Your task to perform on an android device: read, delete, or share a saved page in the chrome app Image 0: 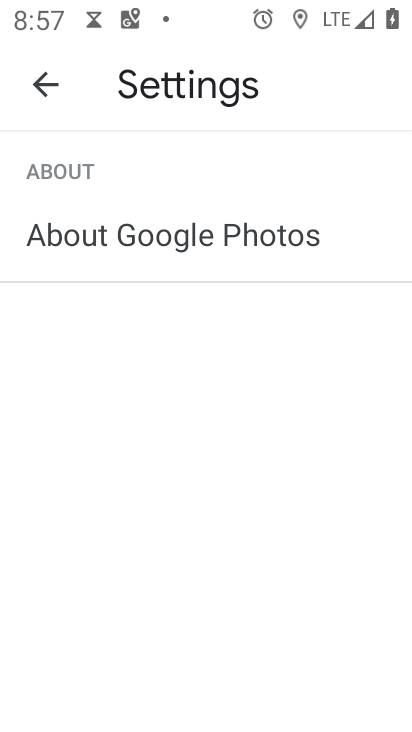
Step 0: press home button
Your task to perform on an android device: read, delete, or share a saved page in the chrome app Image 1: 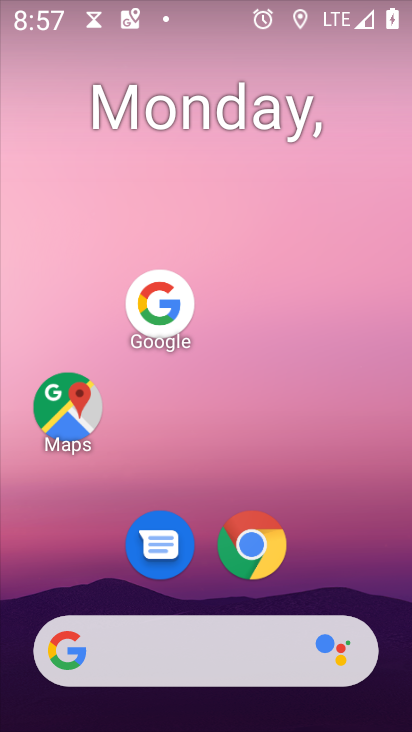
Step 1: click (248, 539)
Your task to perform on an android device: read, delete, or share a saved page in the chrome app Image 2: 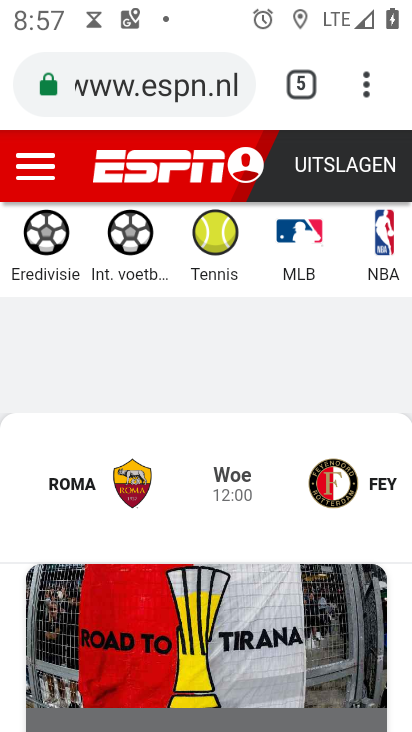
Step 2: drag from (370, 101) to (198, 549)
Your task to perform on an android device: read, delete, or share a saved page in the chrome app Image 3: 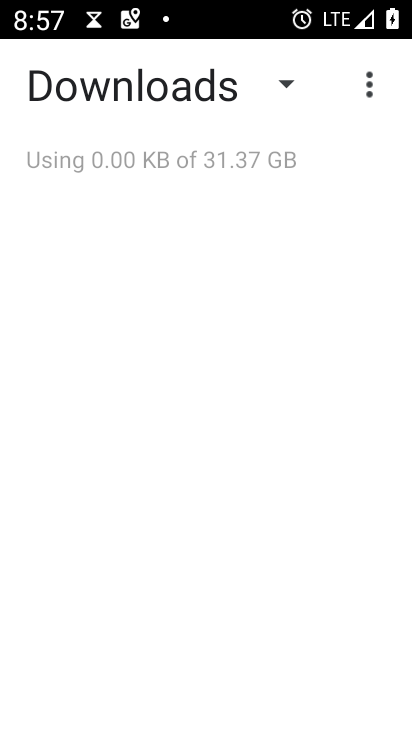
Step 3: click (285, 86)
Your task to perform on an android device: read, delete, or share a saved page in the chrome app Image 4: 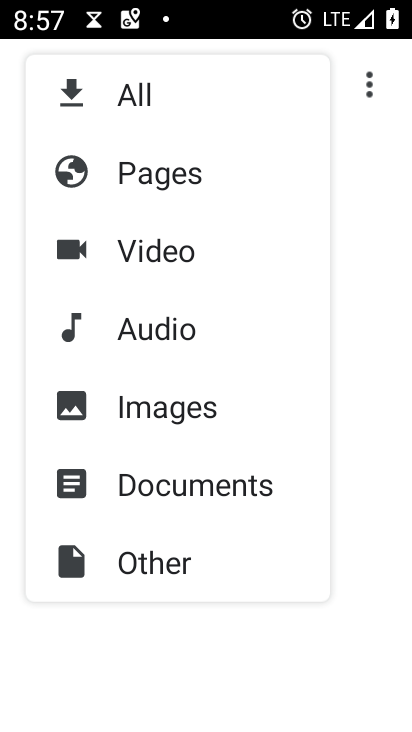
Step 4: click (174, 172)
Your task to perform on an android device: read, delete, or share a saved page in the chrome app Image 5: 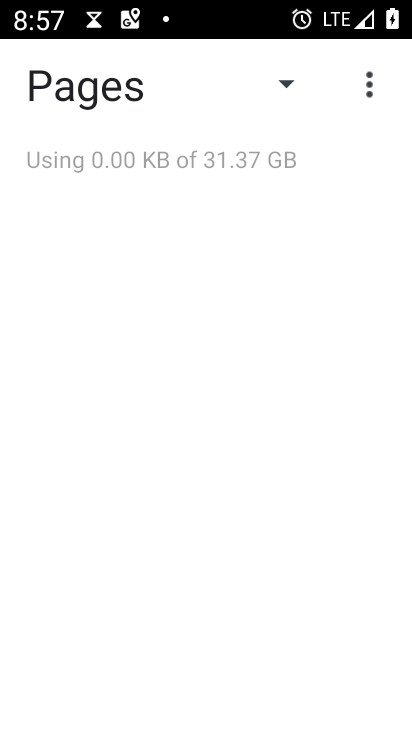
Step 5: task complete